Your task to perform on an android device: Is it going to rain tomorrow? Image 0: 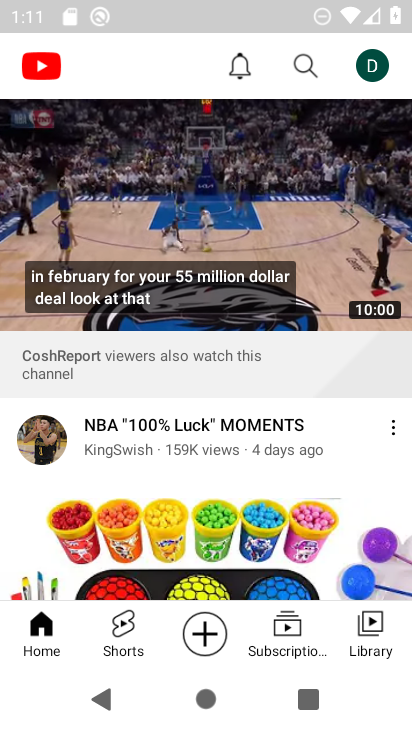
Step 0: press home button
Your task to perform on an android device: Is it going to rain tomorrow? Image 1: 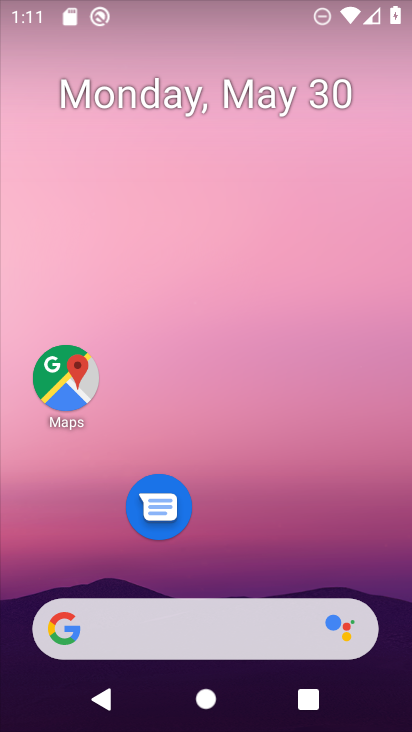
Step 1: drag from (314, 558) to (328, 93)
Your task to perform on an android device: Is it going to rain tomorrow? Image 2: 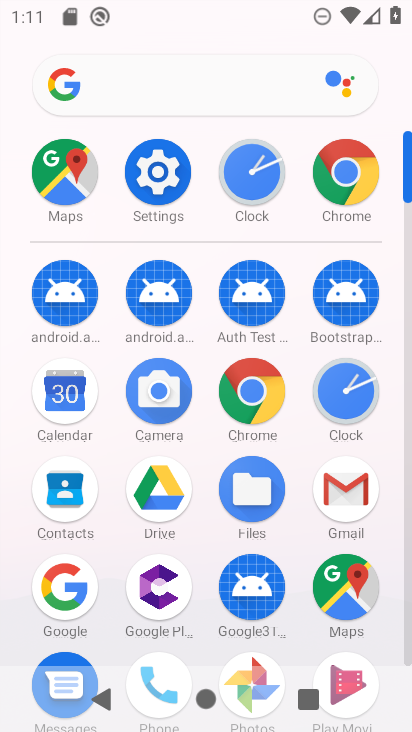
Step 2: click (259, 389)
Your task to perform on an android device: Is it going to rain tomorrow? Image 3: 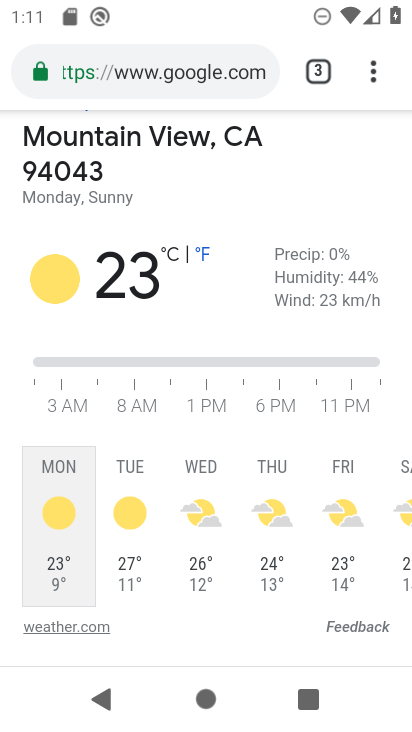
Step 3: click (369, 81)
Your task to perform on an android device: Is it going to rain tomorrow? Image 4: 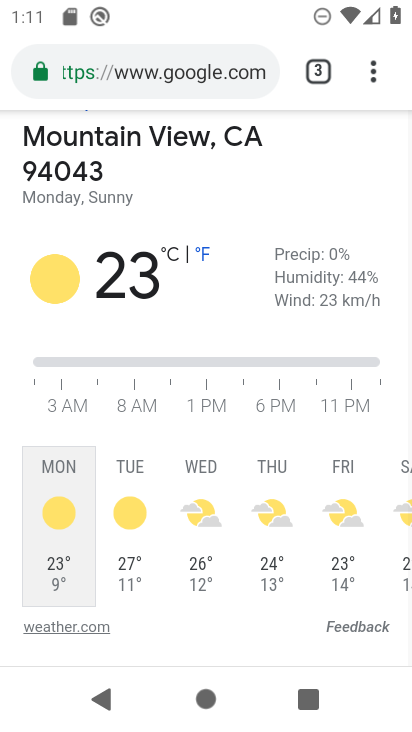
Step 4: click (183, 72)
Your task to perform on an android device: Is it going to rain tomorrow? Image 5: 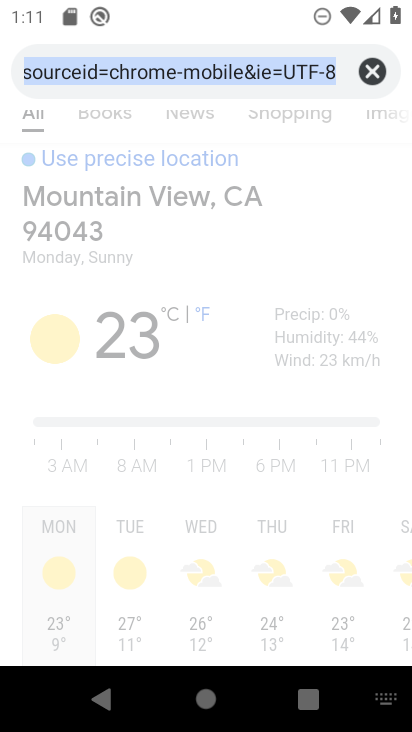
Step 5: click (377, 67)
Your task to perform on an android device: Is it going to rain tomorrow? Image 6: 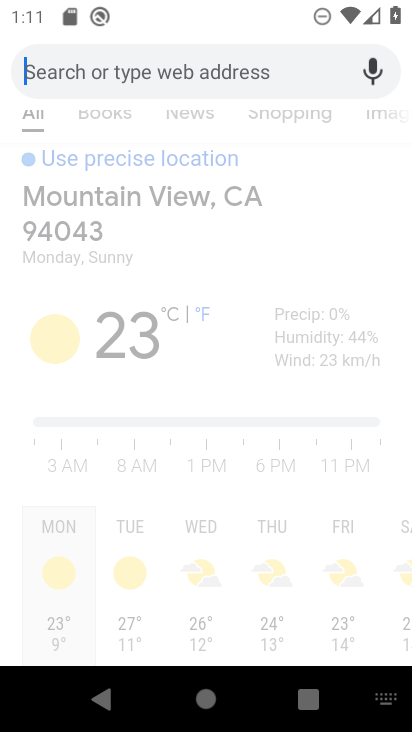
Step 6: type "Is it going to rain tomorrow?"
Your task to perform on an android device: Is it going to rain tomorrow? Image 7: 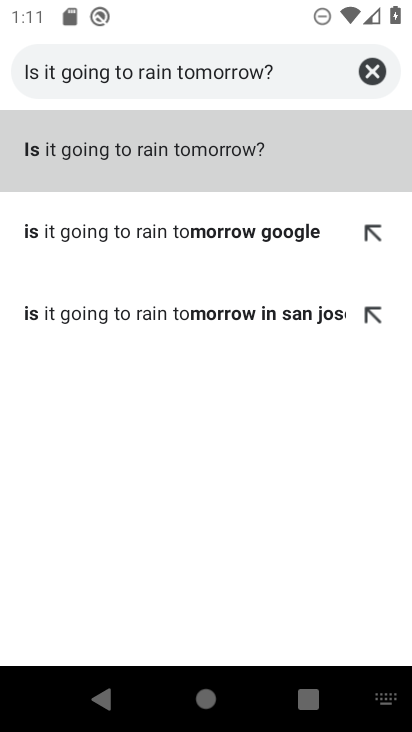
Step 7: click (179, 156)
Your task to perform on an android device: Is it going to rain tomorrow? Image 8: 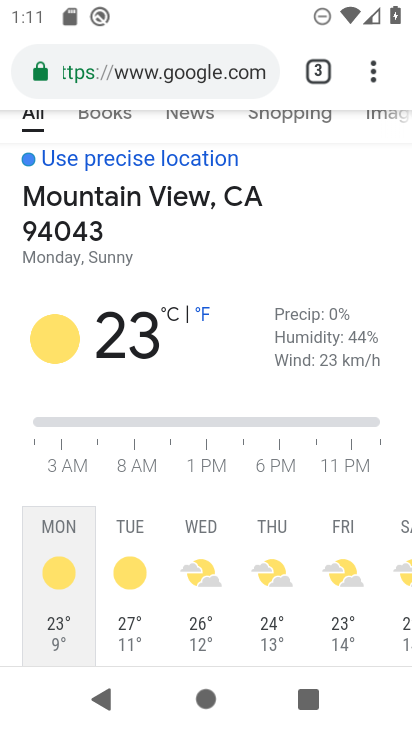
Step 8: task complete